Your task to perform on an android device: uninstall "eBay: The shopping marketplace" Image 0: 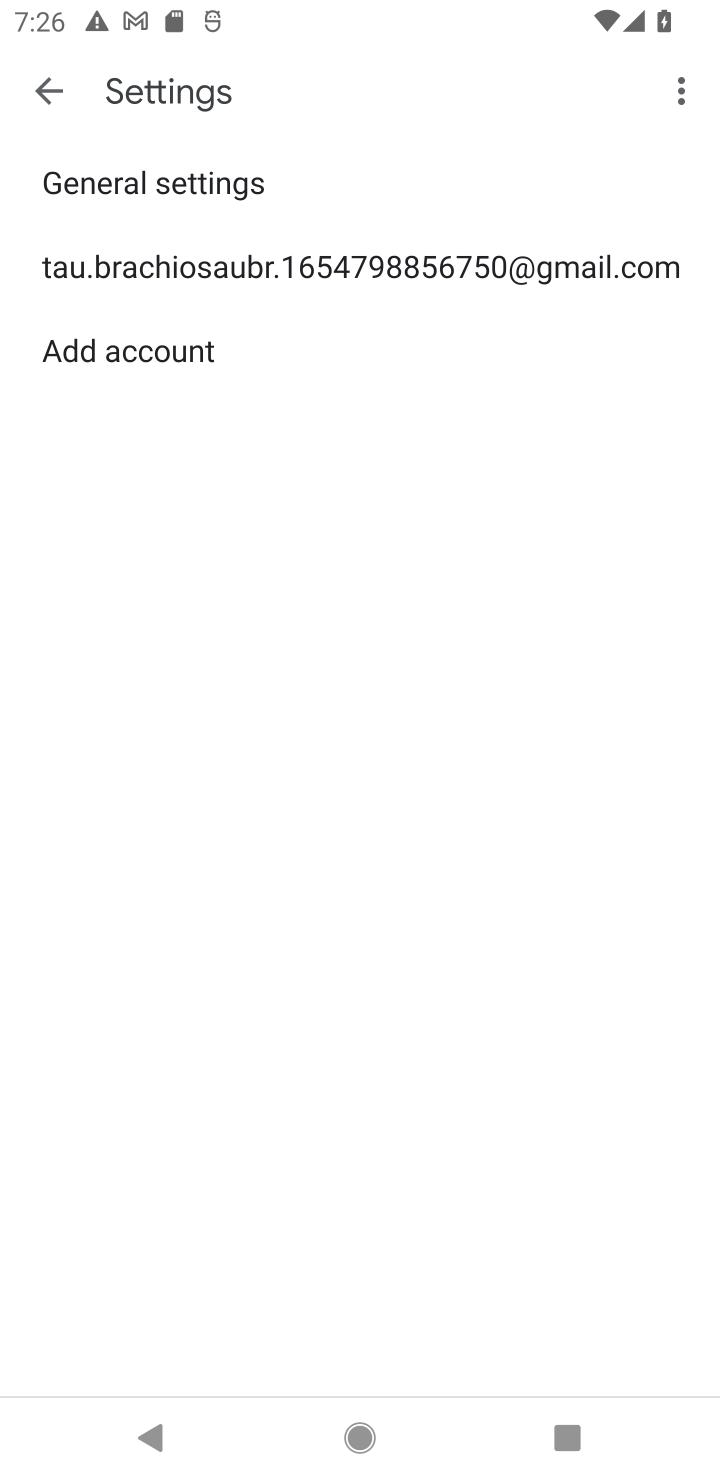
Step 0: press home button
Your task to perform on an android device: uninstall "eBay: The shopping marketplace" Image 1: 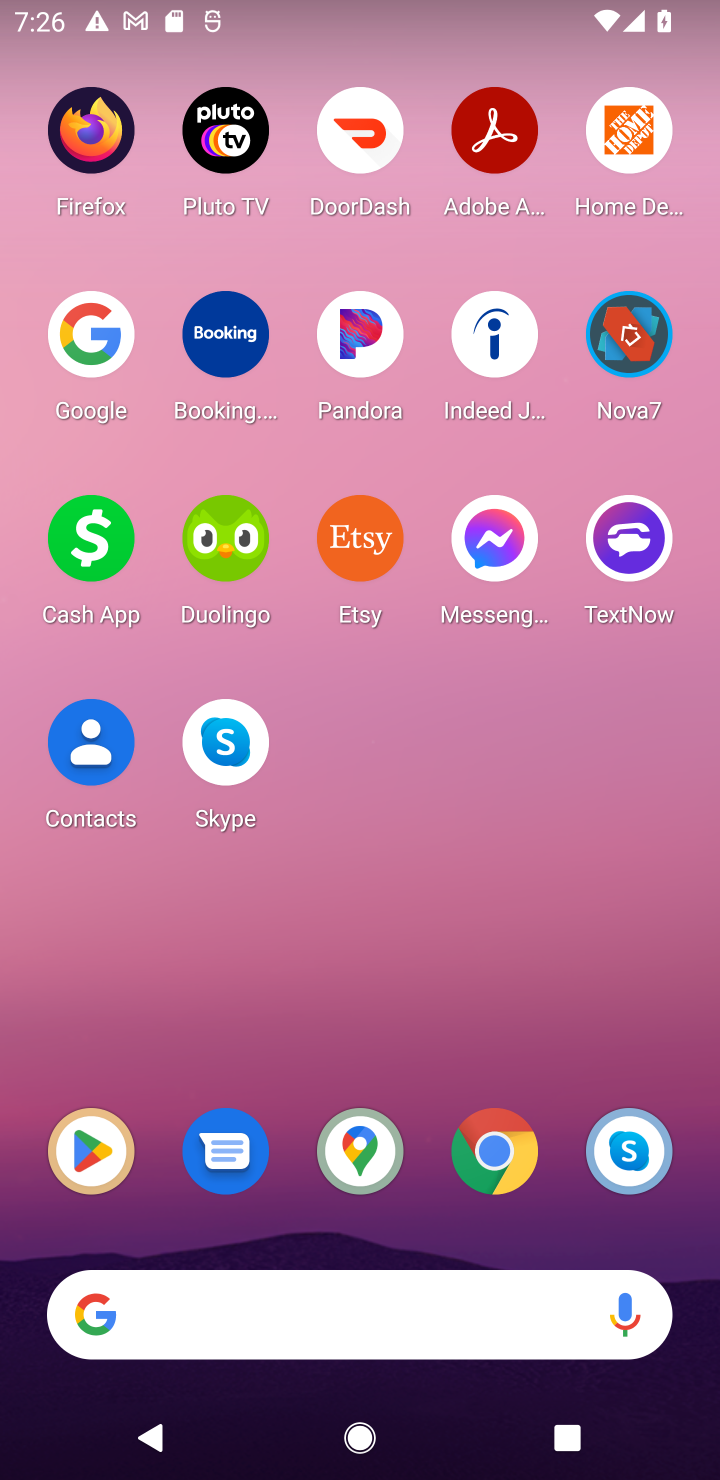
Step 1: drag from (247, 1255) to (247, 20)
Your task to perform on an android device: uninstall "eBay: The shopping marketplace" Image 2: 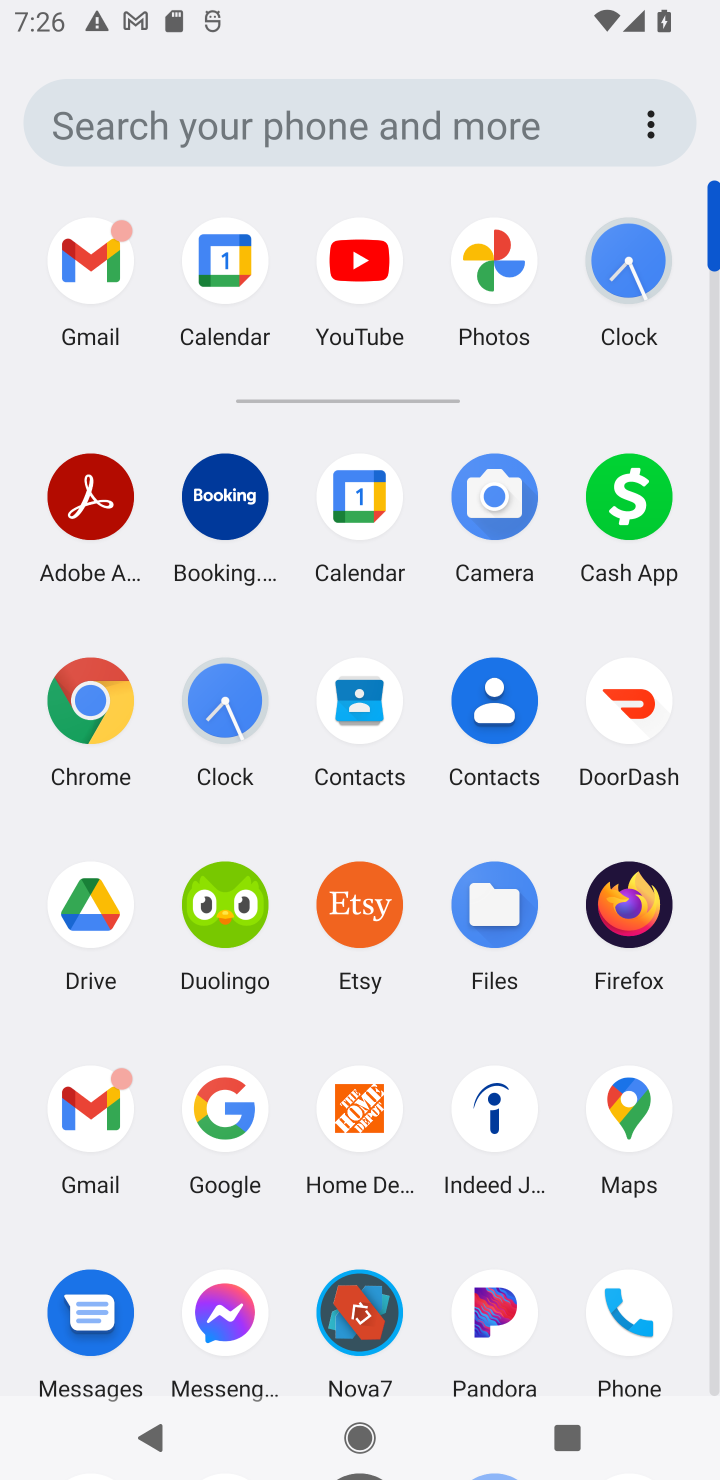
Step 2: drag from (552, 1092) to (561, 527)
Your task to perform on an android device: uninstall "eBay: The shopping marketplace" Image 3: 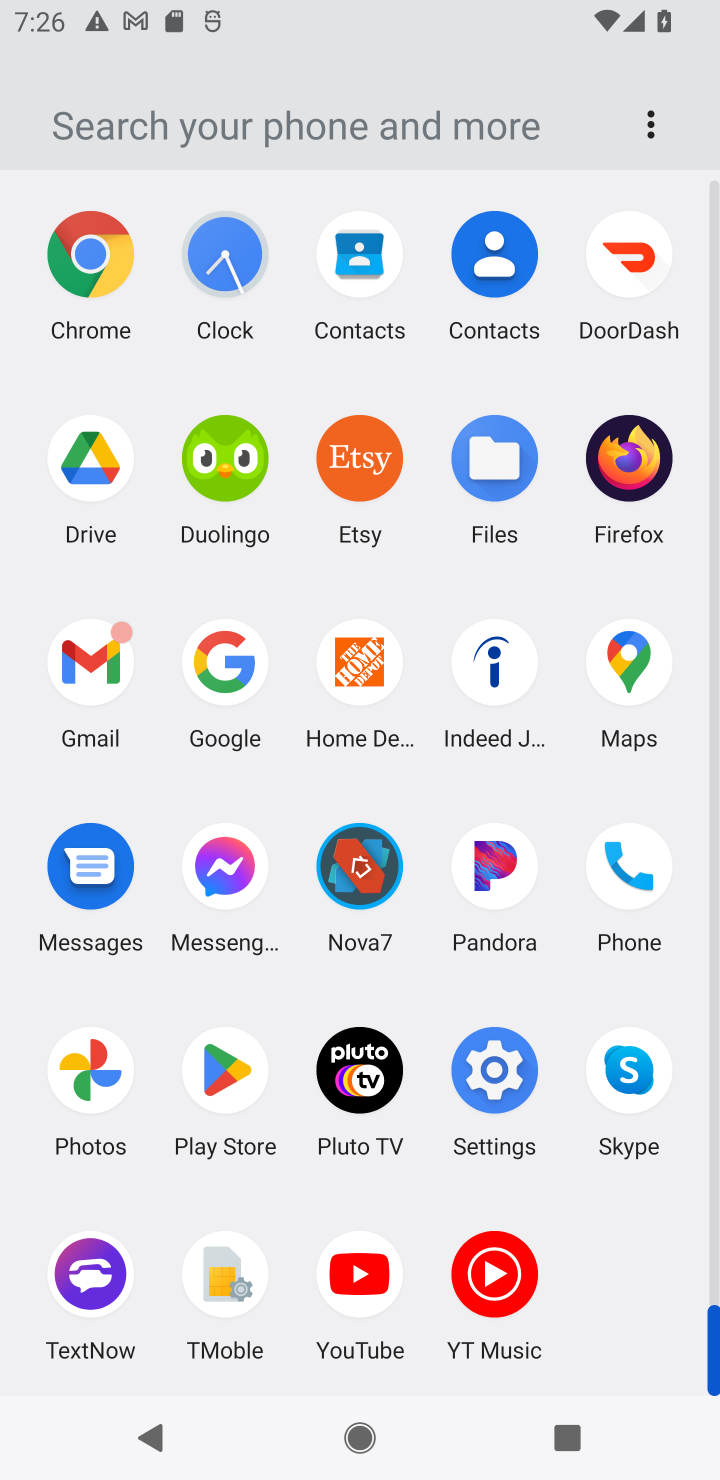
Step 3: click (233, 1060)
Your task to perform on an android device: uninstall "eBay: The shopping marketplace" Image 4: 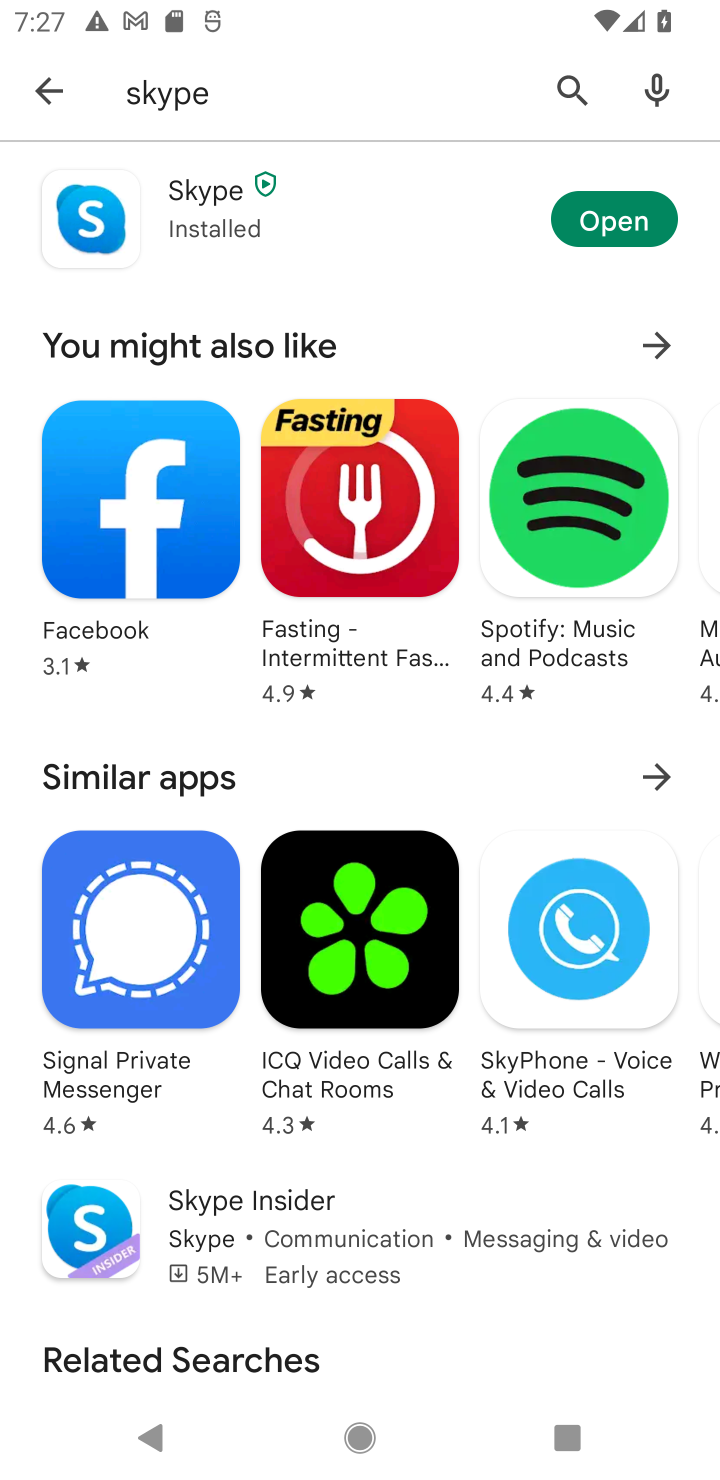
Step 4: click (573, 91)
Your task to perform on an android device: uninstall "eBay: The shopping marketplace" Image 5: 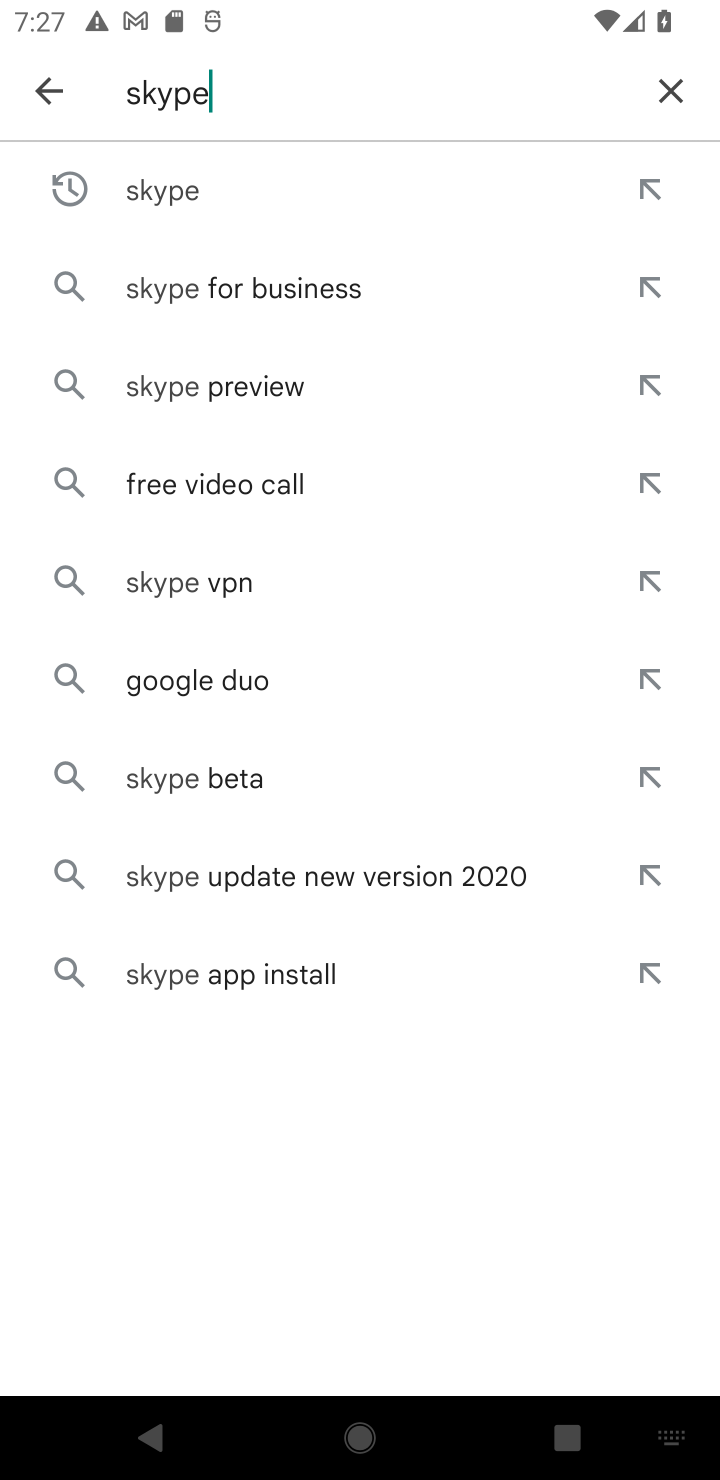
Step 5: click (690, 89)
Your task to perform on an android device: uninstall "eBay: The shopping marketplace" Image 6: 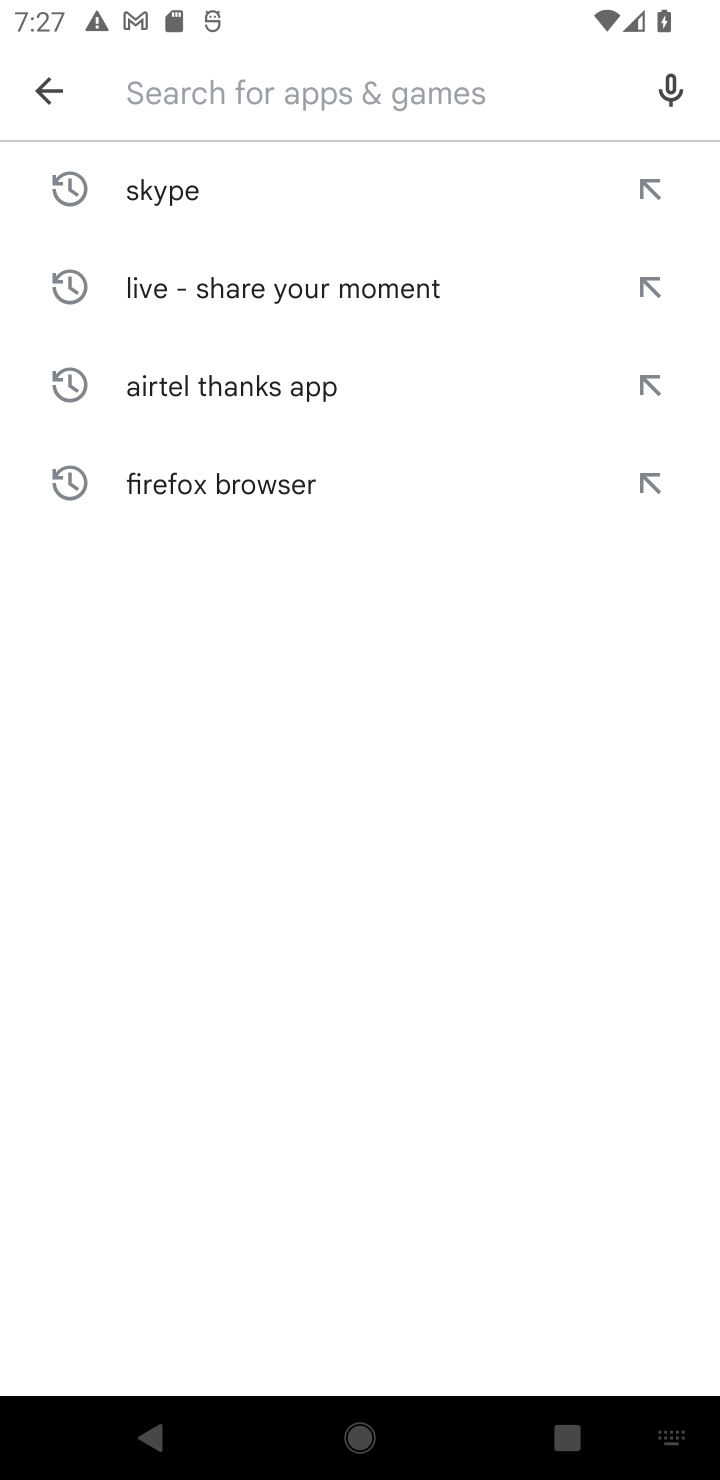
Step 6: type "ebay"
Your task to perform on an android device: uninstall "eBay: The shopping marketplace" Image 7: 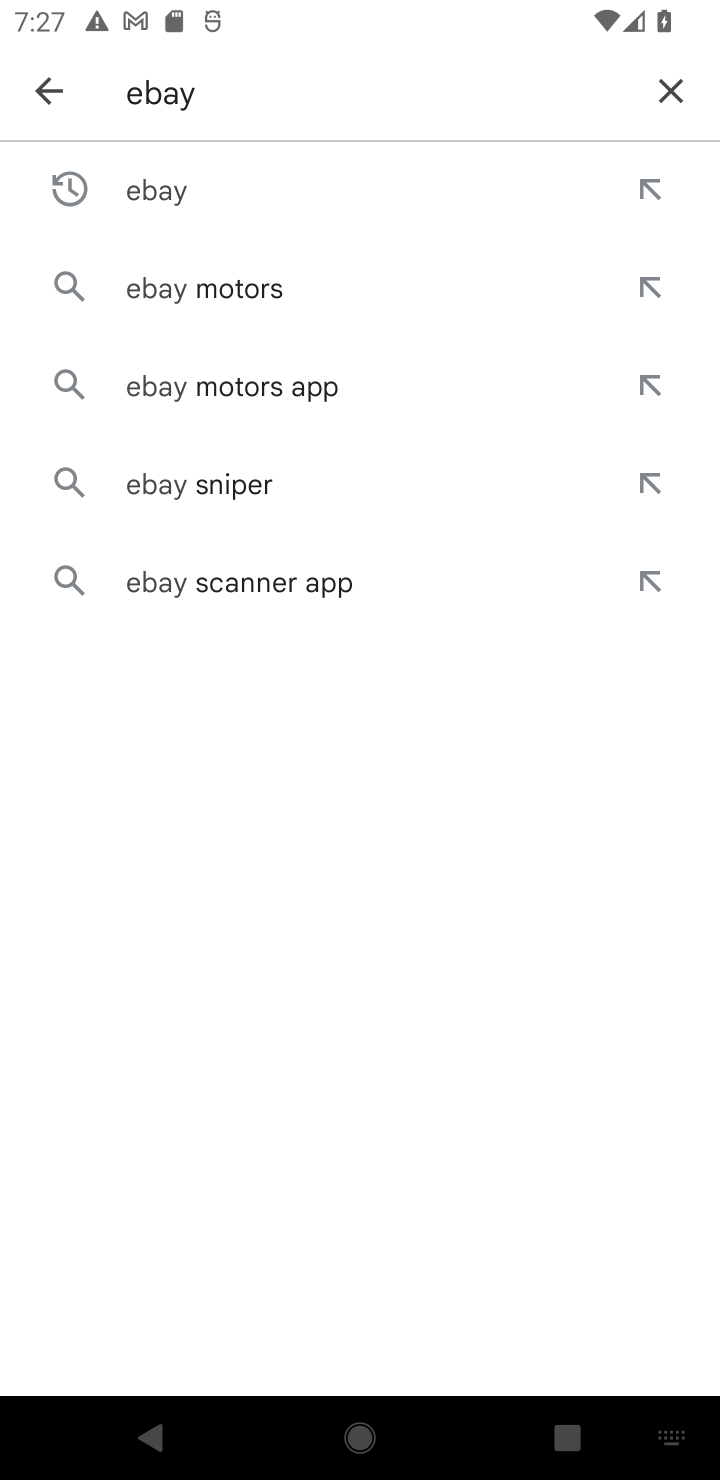
Step 7: click (251, 210)
Your task to perform on an android device: uninstall "eBay: The shopping marketplace" Image 8: 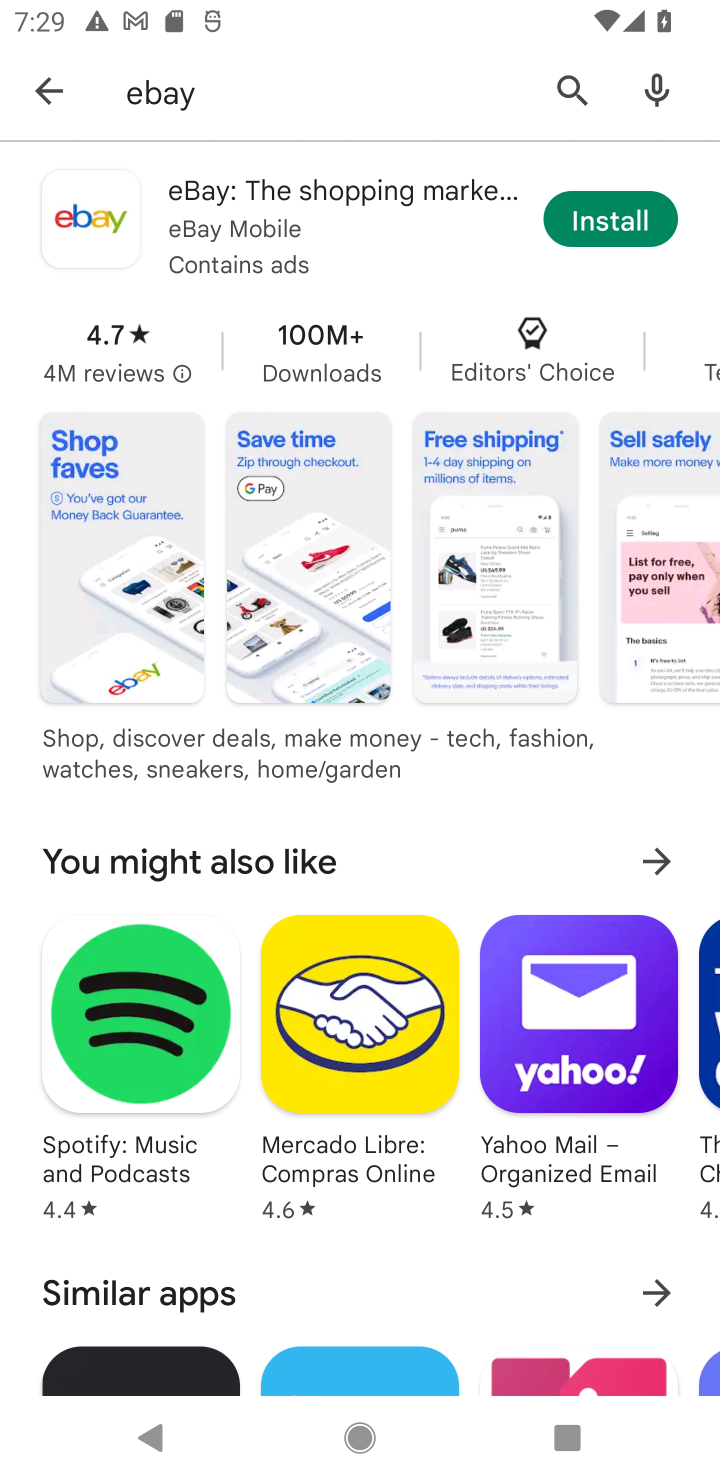
Step 8: task complete